Your task to perform on an android device: Go to notification settings Image 0: 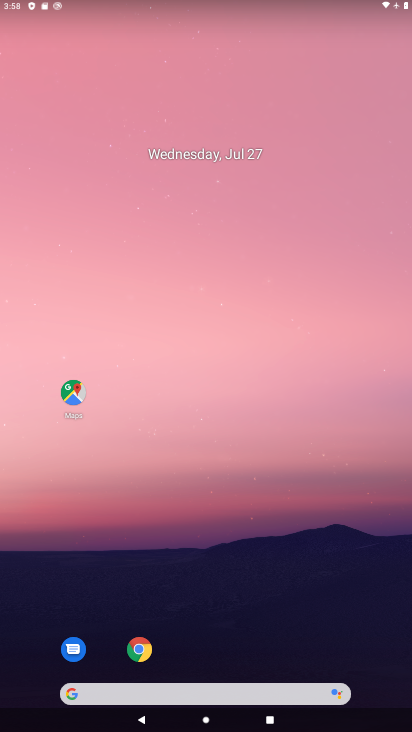
Step 0: drag from (328, 625) to (307, 194)
Your task to perform on an android device: Go to notification settings Image 1: 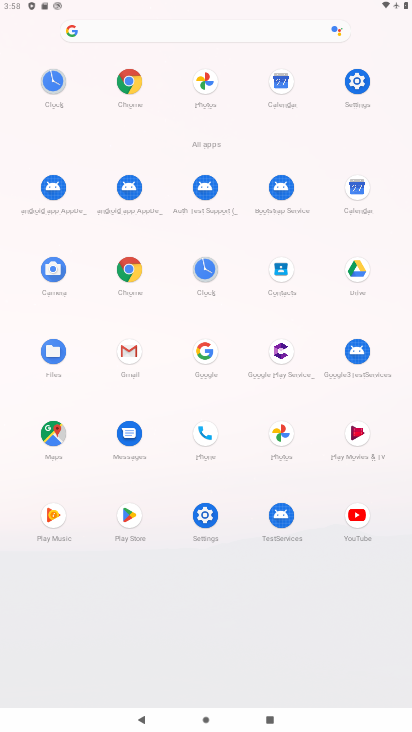
Step 1: click (353, 85)
Your task to perform on an android device: Go to notification settings Image 2: 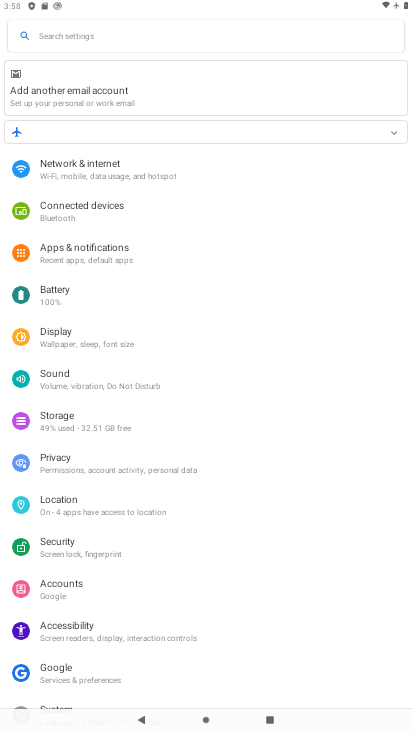
Step 2: click (192, 247)
Your task to perform on an android device: Go to notification settings Image 3: 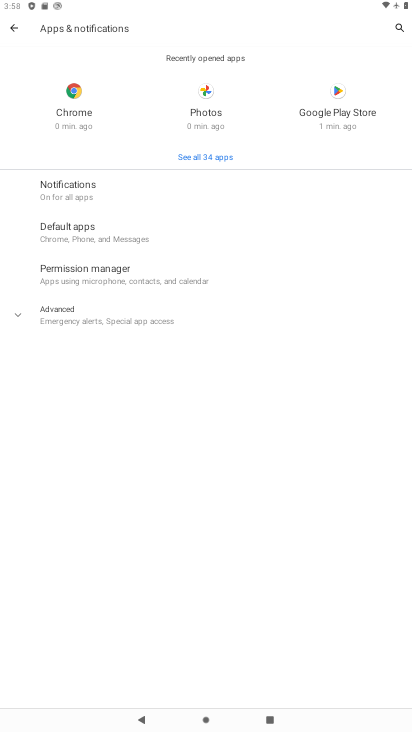
Step 3: click (142, 196)
Your task to perform on an android device: Go to notification settings Image 4: 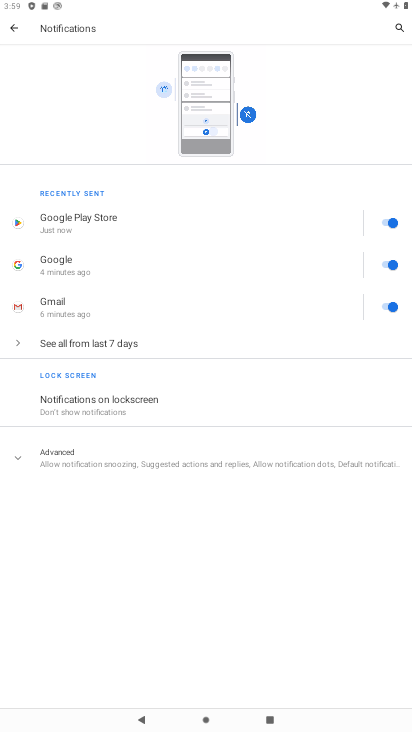
Step 4: task complete